Your task to perform on an android device: Open Yahoo.com Image 0: 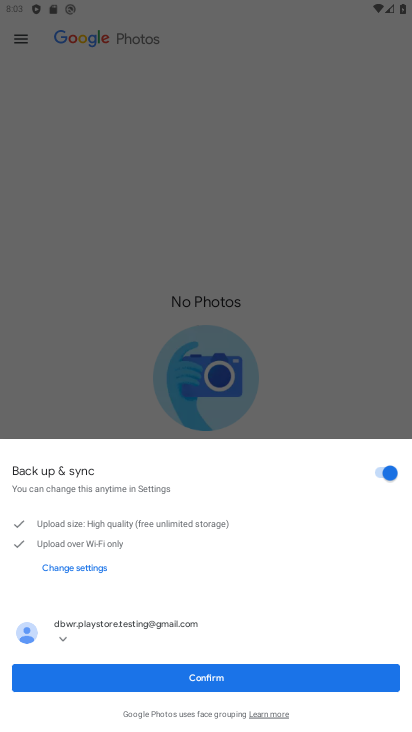
Step 0: press back button
Your task to perform on an android device: Open Yahoo.com Image 1: 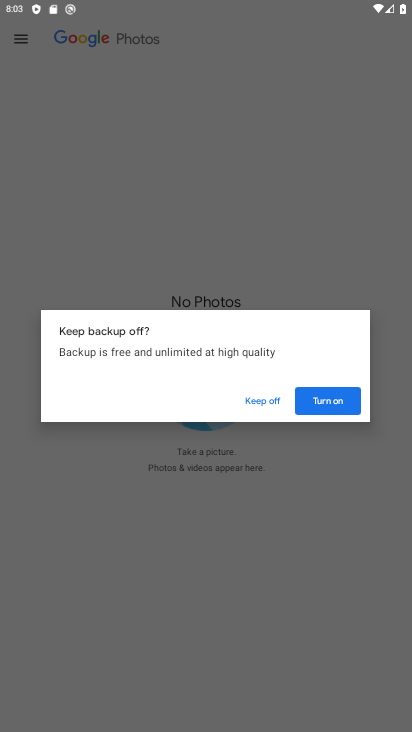
Step 1: press home button
Your task to perform on an android device: Open Yahoo.com Image 2: 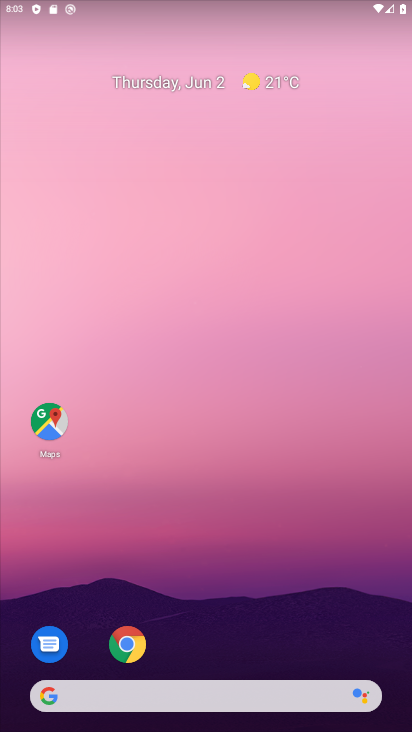
Step 2: drag from (248, 603) to (231, 33)
Your task to perform on an android device: Open Yahoo.com Image 3: 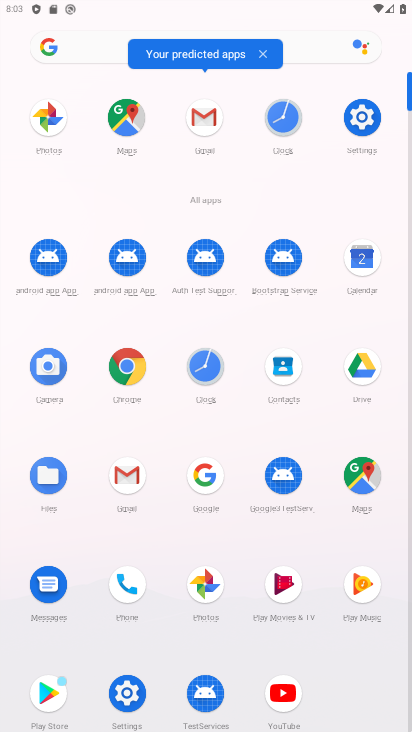
Step 3: click (123, 362)
Your task to perform on an android device: Open Yahoo.com Image 4: 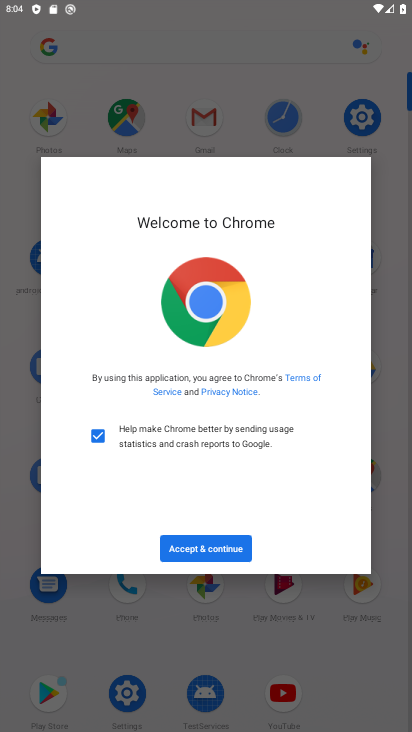
Step 4: click (204, 543)
Your task to perform on an android device: Open Yahoo.com Image 5: 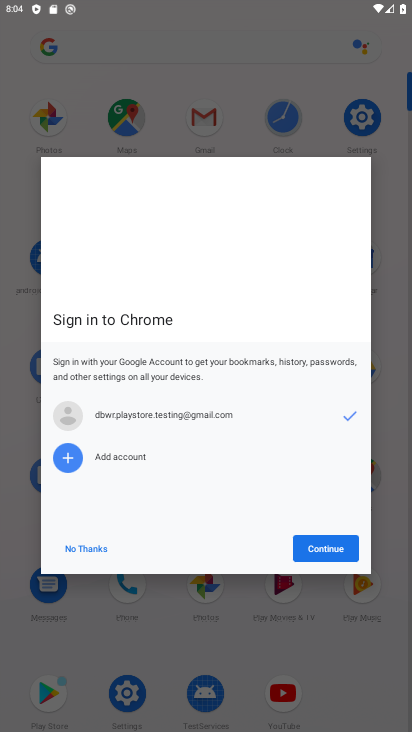
Step 5: click (304, 541)
Your task to perform on an android device: Open Yahoo.com Image 6: 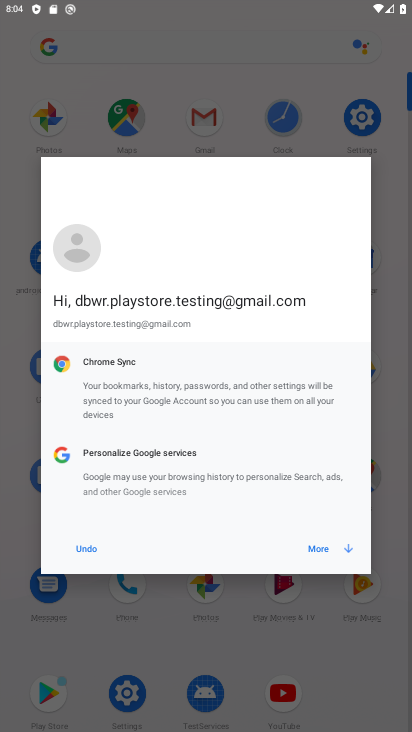
Step 6: click (318, 547)
Your task to perform on an android device: Open Yahoo.com Image 7: 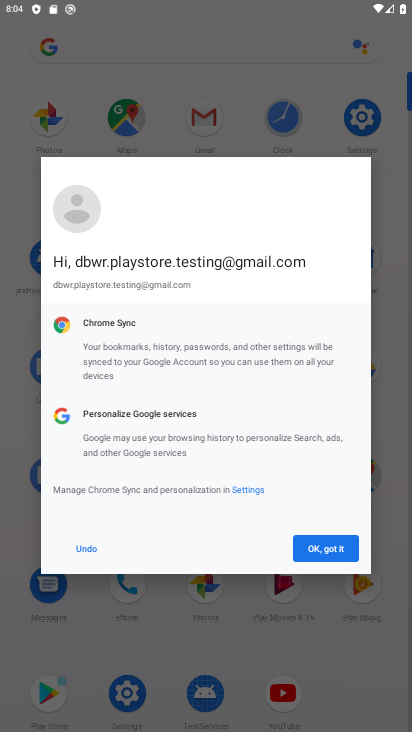
Step 7: click (318, 547)
Your task to perform on an android device: Open Yahoo.com Image 8: 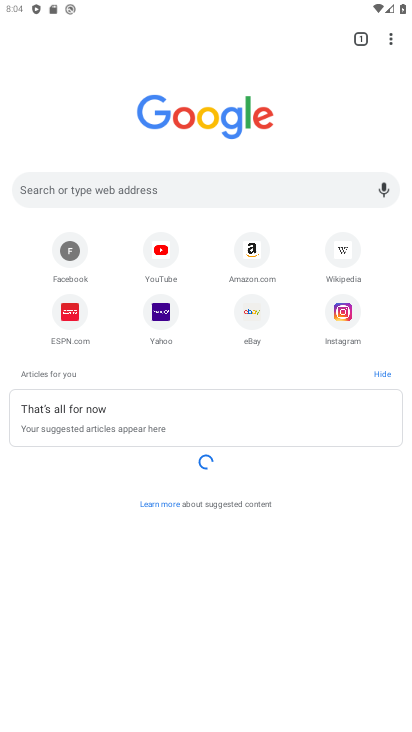
Step 8: click (156, 314)
Your task to perform on an android device: Open Yahoo.com Image 9: 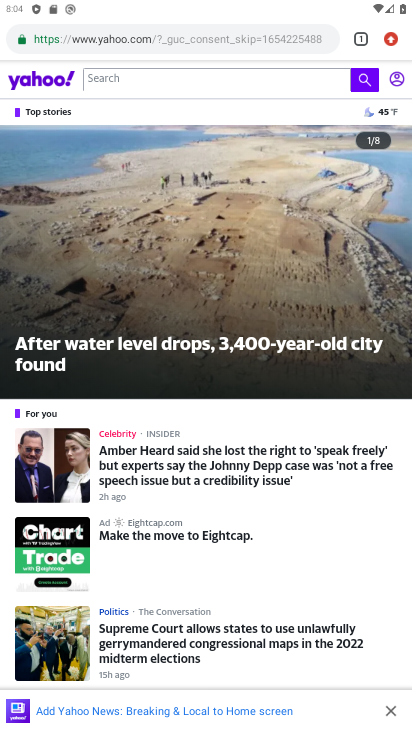
Step 9: task complete